Your task to perform on an android device: Is it going to rain today? Image 0: 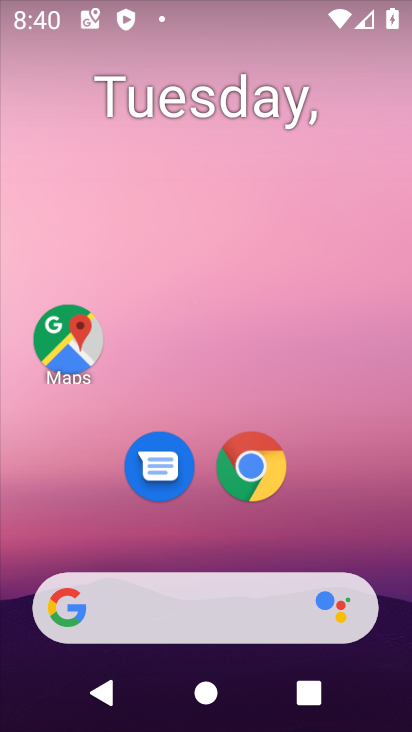
Step 0: click (194, 613)
Your task to perform on an android device: Is it going to rain today? Image 1: 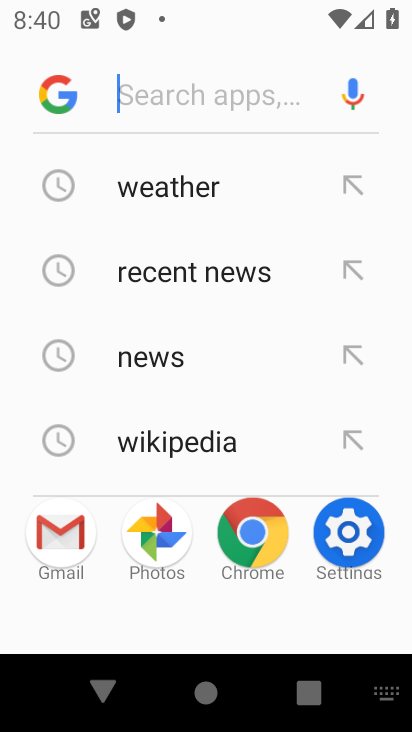
Step 1: click (180, 197)
Your task to perform on an android device: Is it going to rain today? Image 2: 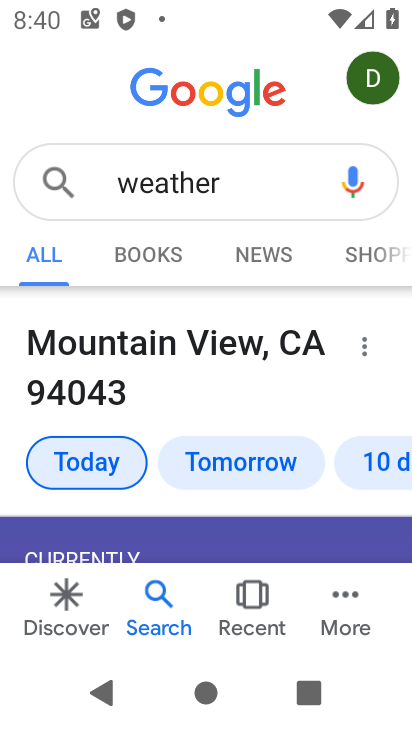
Step 2: task complete